Your task to perform on an android device: turn pop-ups on in chrome Image 0: 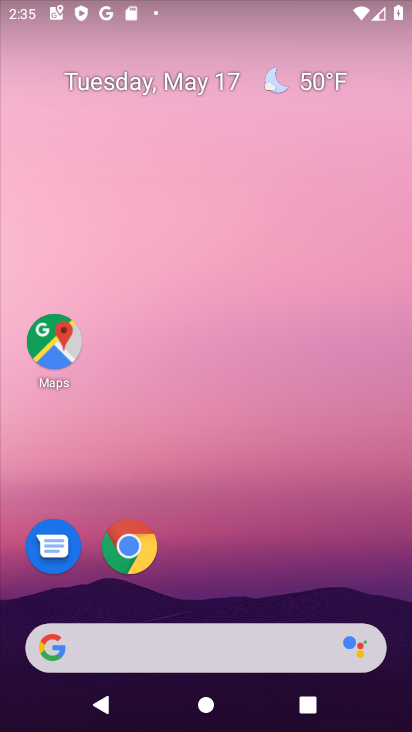
Step 0: click (142, 555)
Your task to perform on an android device: turn pop-ups on in chrome Image 1: 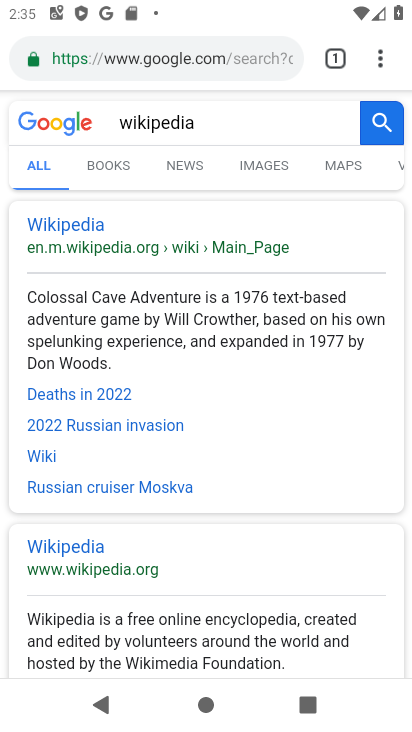
Step 1: click (379, 65)
Your task to perform on an android device: turn pop-ups on in chrome Image 2: 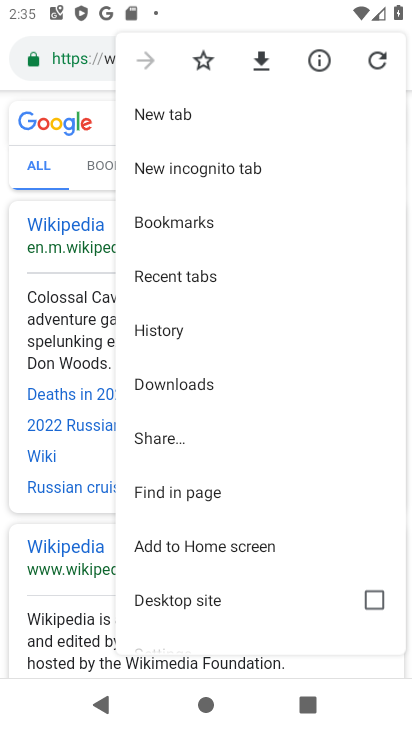
Step 2: drag from (199, 578) to (240, 363)
Your task to perform on an android device: turn pop-ups on in chrome Image 3: 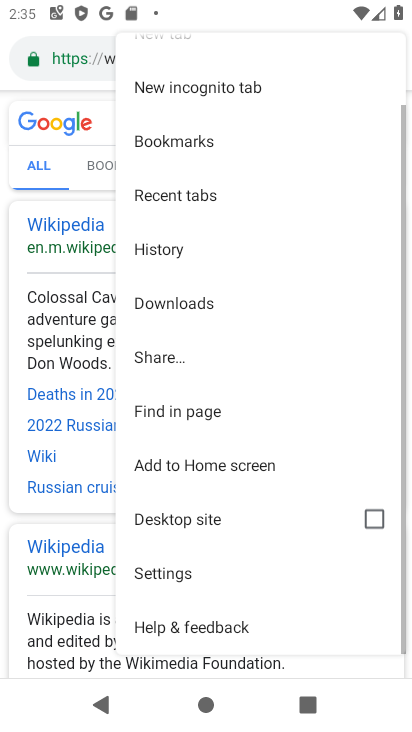
Step 3: click (172, 582)
Your task to perform on an android device: turn pop-ups on in chrome Image 4: 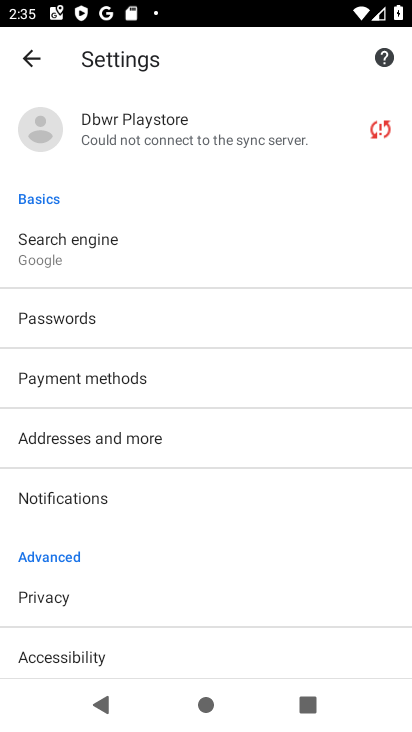
Step 4: drag from (95, 587) to (127, 288)
Your task to perform on an android device: turn pop-ups on in chrome Image 5: 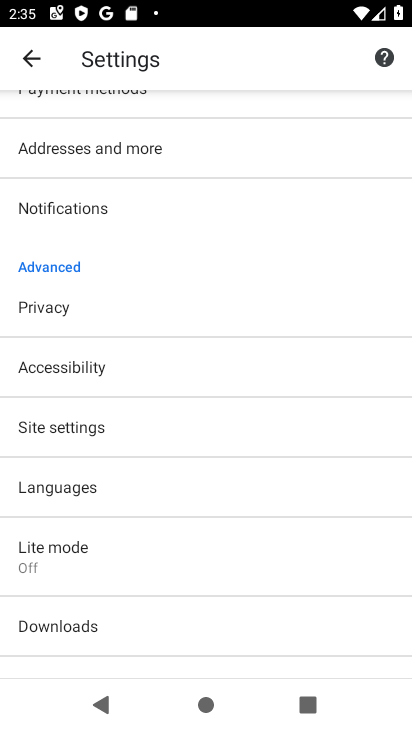
Step 5: click (71, 417)
Your task to perform on an android device: turn pop-ups on in chrome Image 6: 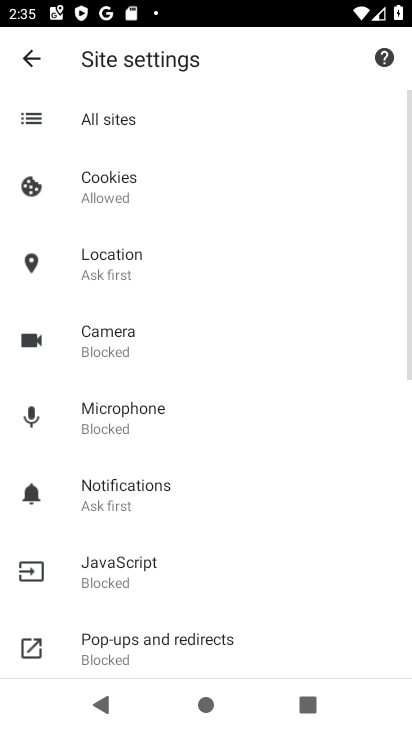
Step 6: click (128, 655)
Your task to perform on an android device: turn pop-ups on in chrome Image 7: 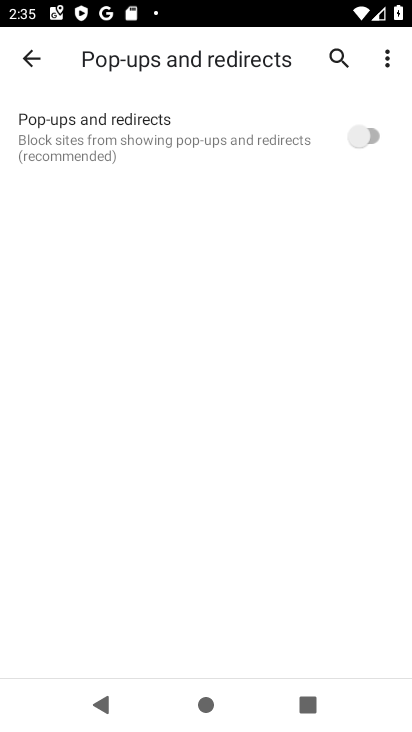
Step 7: click (374, 131)
Your task to perform on an android device: turn pop-ups on in chrome Image 8: 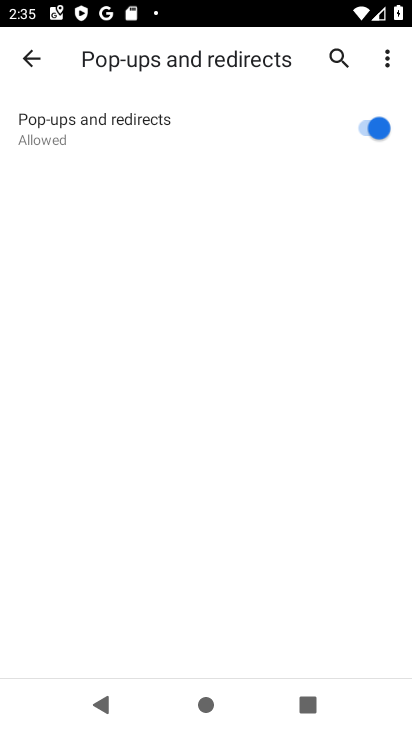
Step 8: task complete